Your task to perform on an android device: turn vacation reply on in the gmail app Image 0: 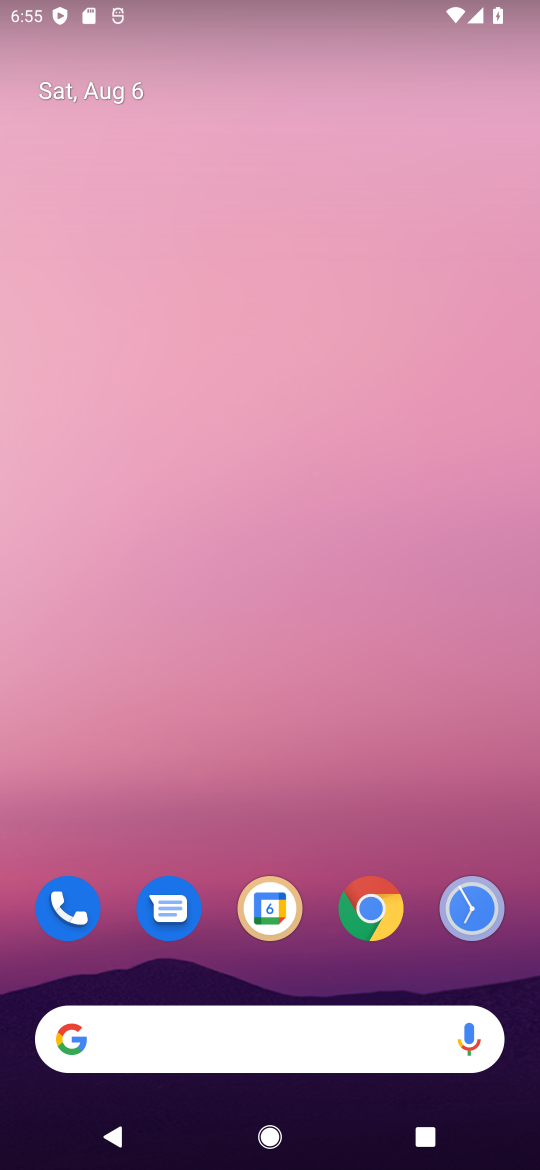
Step 0: drag from (303, 825) to (226, 355)
Your task to perform on an android device: turn vacation reply on in the gmail app Image 1: 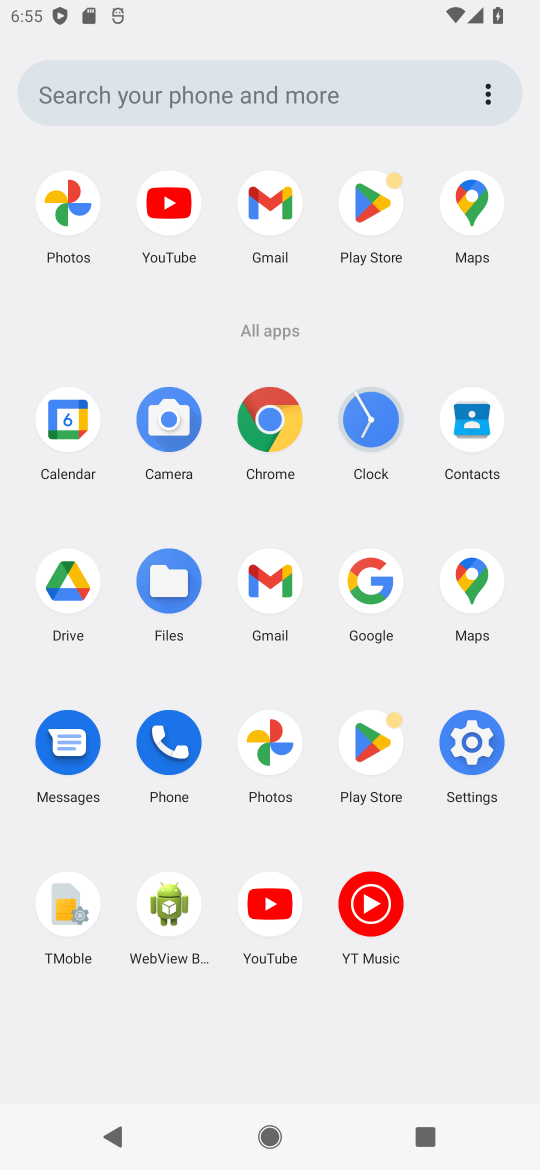
Step 1: click (277, 210)
Your task to perform on an android device: turn vacation reply on in the gmail app Image 2: 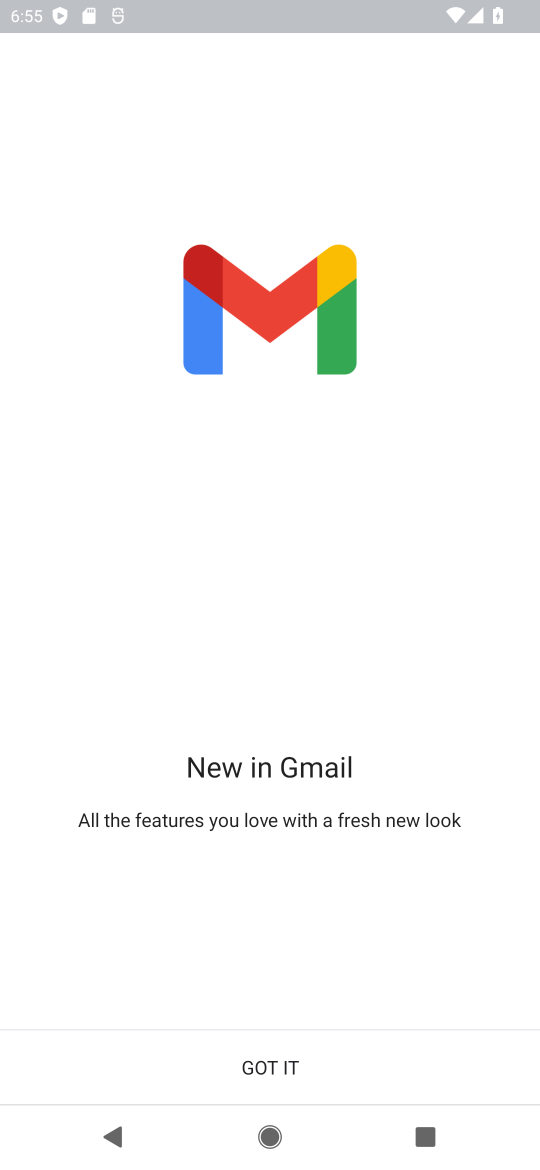
Step 2: click (343, 1071)
Your task to perform on an android device: turn vacation reply on in the gmail app Image 3: 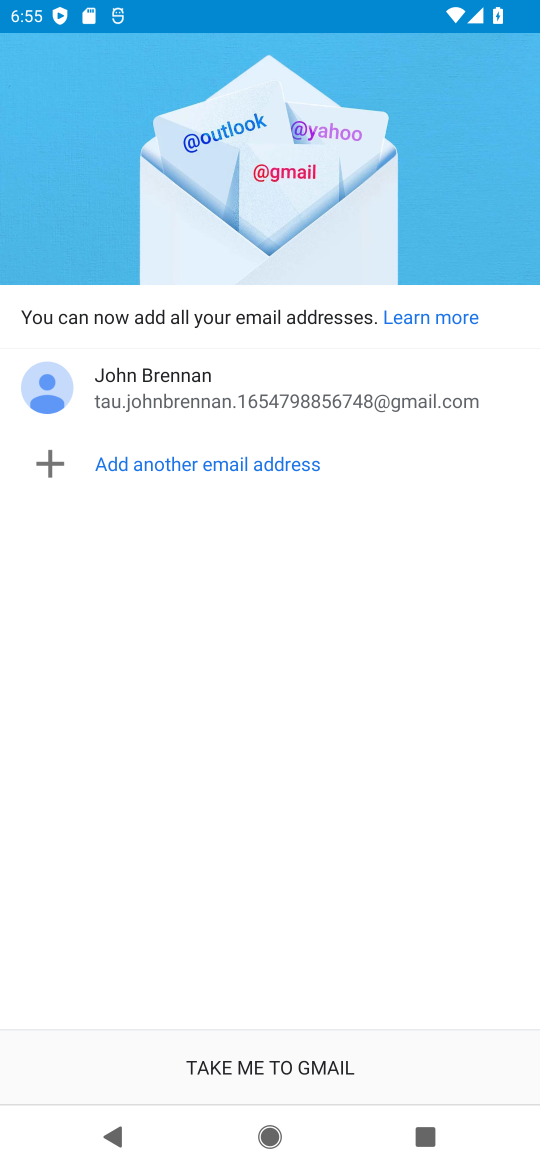
Step 3: click (343, 1071)
Your task to perform on an android device: turn vacation reply on in the gmail app Image 4: 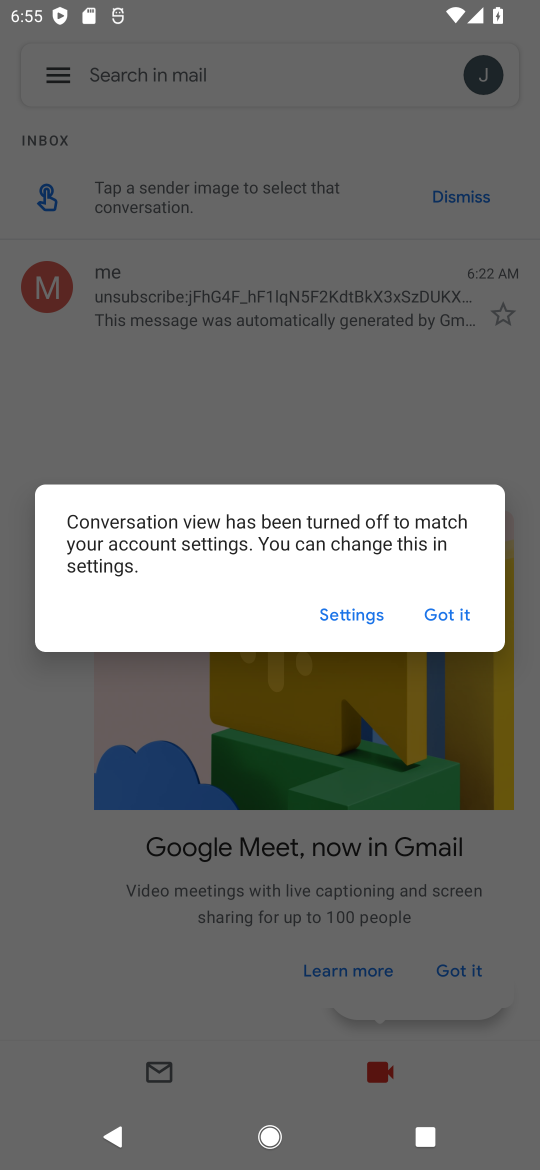
Step 4: click (436, 619)
Your task to perform on an android device: turn vacation reply on in the gmail app Image 5: 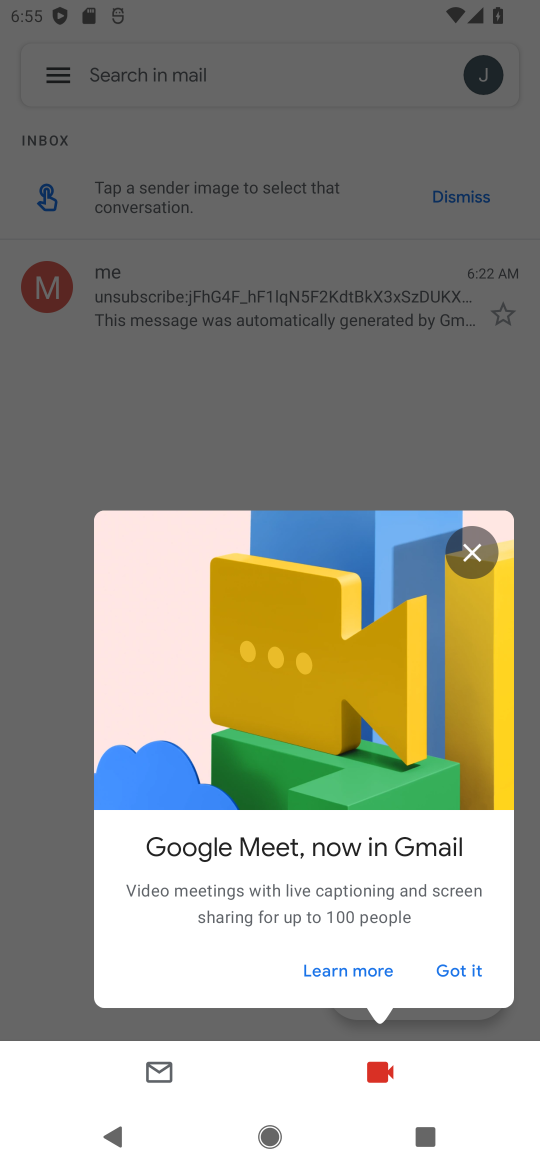
Step 5: click (480, 550)
Your task to perform on an android device: turn vacation reply on in the gmail app Image 6: 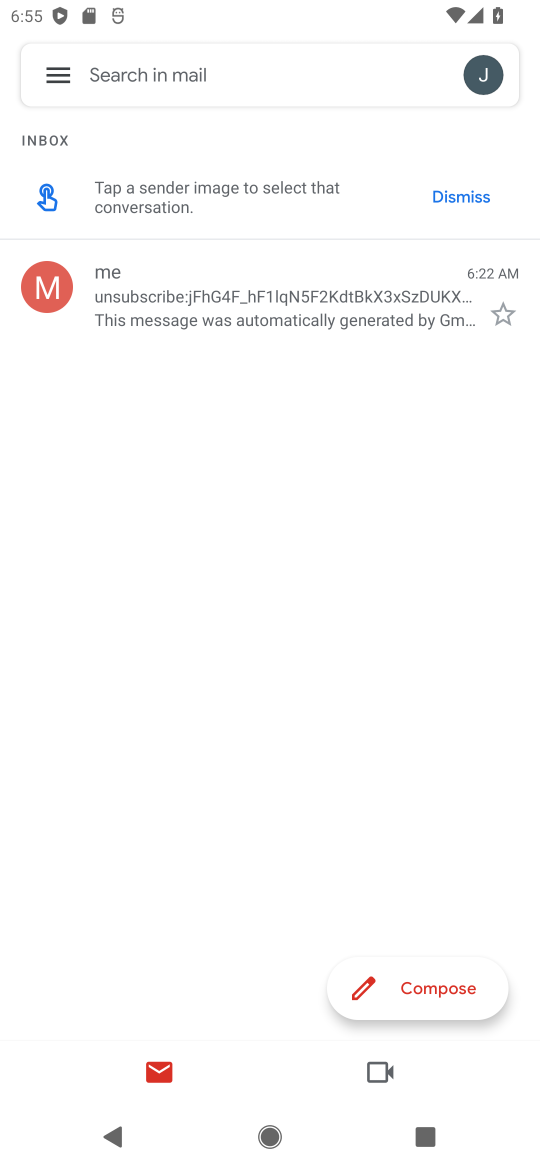
Step 6: click (53, 87)
Your task to perform on an android device: turn vacation reply on in the gmail app Image 7: 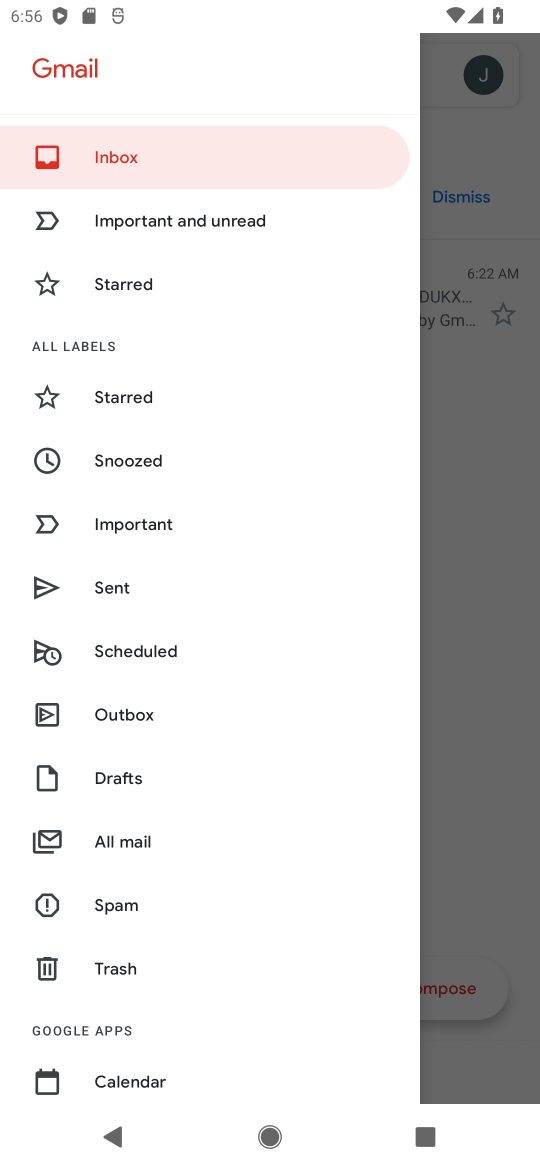
Step 7: drag from (253, 1045) to (226, 496)
Your task to perform on an android device: turn vacation reply on in the gmail app Image 8: 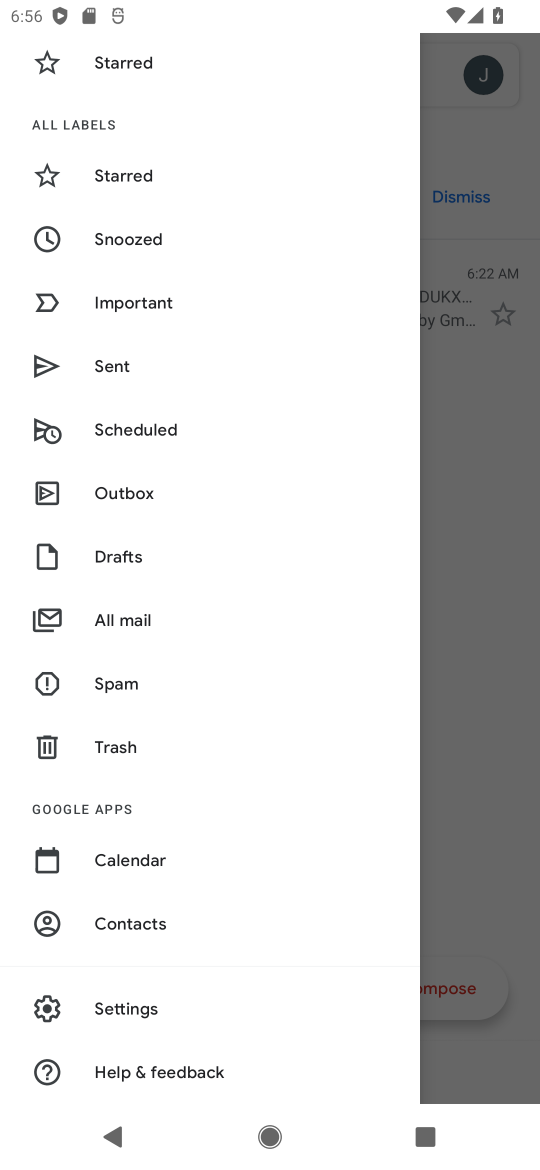
Step 8: click (126, 1001)
Your task to perform on an android device: turn vacation reply on in the gmail app Image 9: 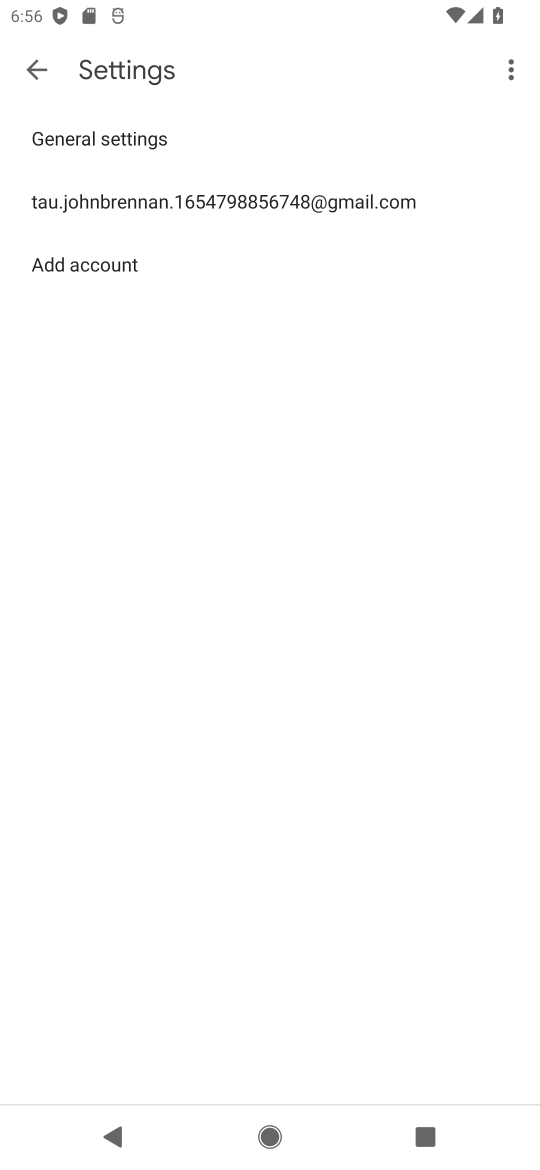
Step 9: click (140, 202)
Your task to perform on an android device: turn vacation reply on in the gmail app Image 10: 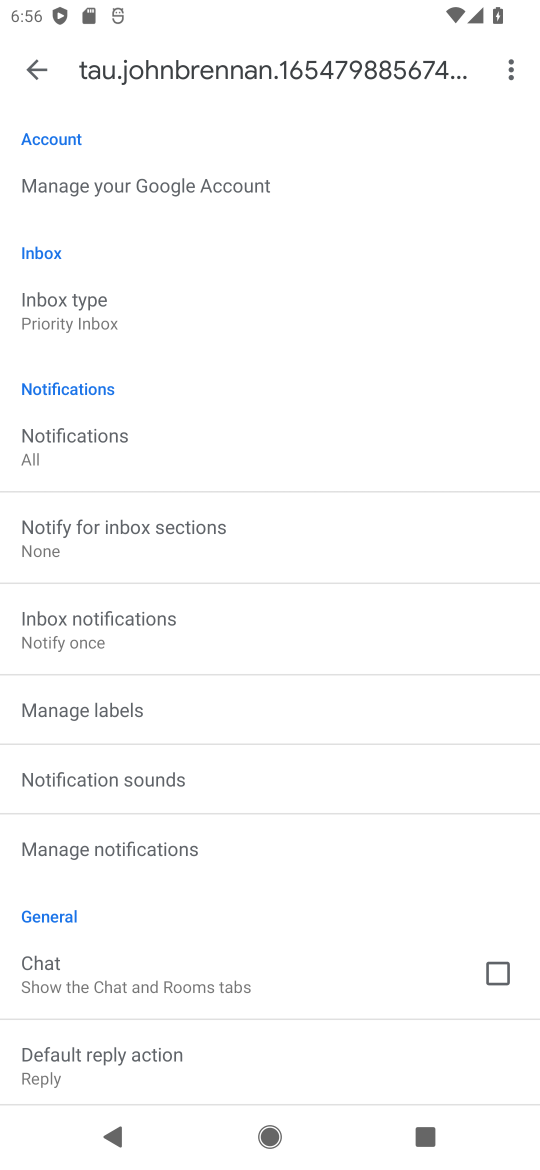
Step 10: task complete